Your task to perform on an android device: Open Google Image 0: 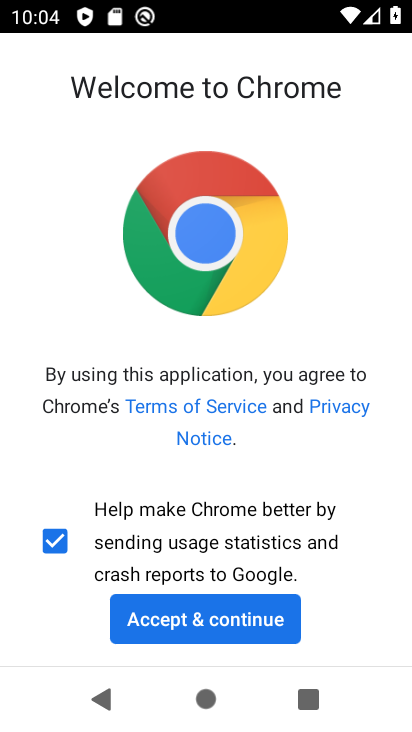
Step 0: press home button
Your task to perform on an android device: Open Google Image 1: 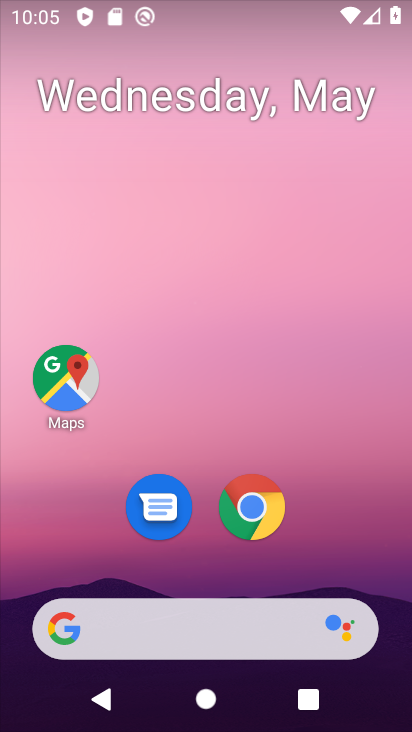
Step 1: drag from (199, 572) to (277, 62)
Your task to perform on an android device: Open Google Image 2: 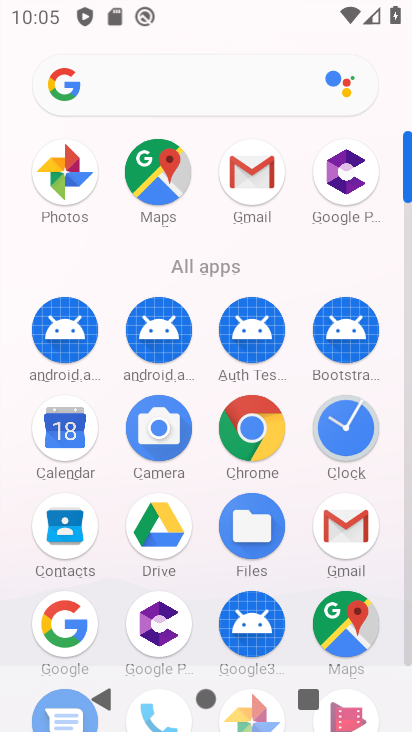
Step 2: click (71, 622)
Your task to perform on an android device: Open Google Image 3: 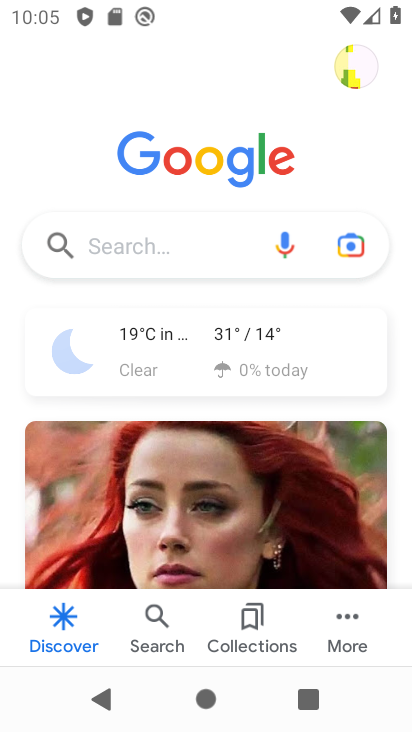
Step 3: task complete